Your task to perform on an android device: Open the stopwatch Image 0: 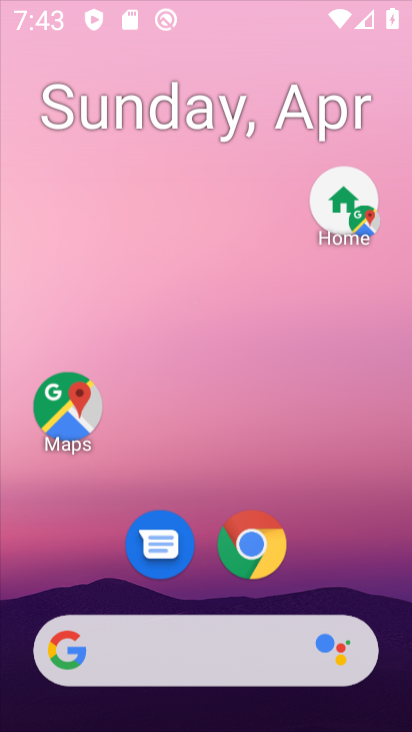
Step 0: press home button
Your task to perform on an android device: Open the stopwatch Image 1: 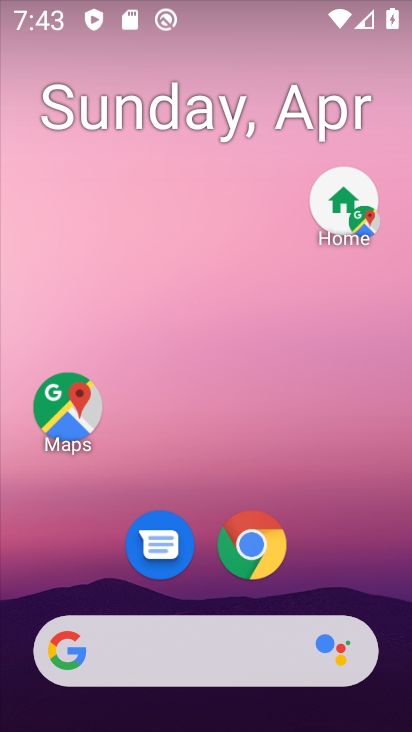
Step 1: drag from (300, 539) to (260, 210)
Your task to perform on an android device: Open the stopwatch Image 2: 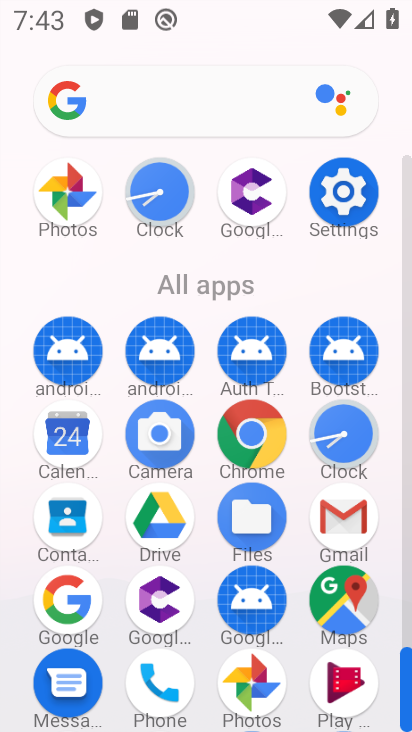
Step 2: click (349, 421)
Your task to perform on an android device: Open the stopwatch Image 3: 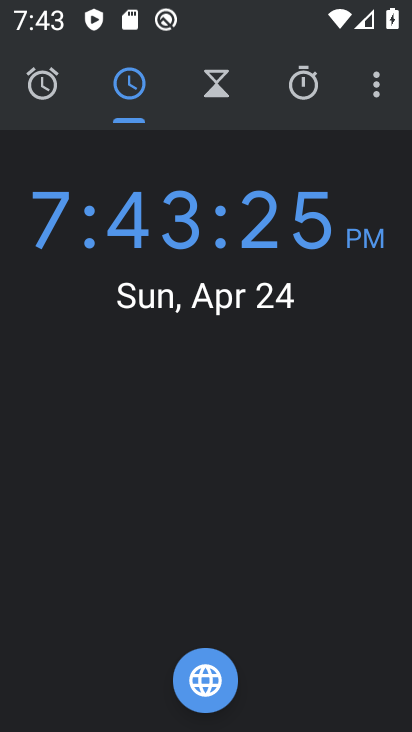
Step 3: click (299, 73)
Your task to perform on an android device: Open the stopwatch Image 4: 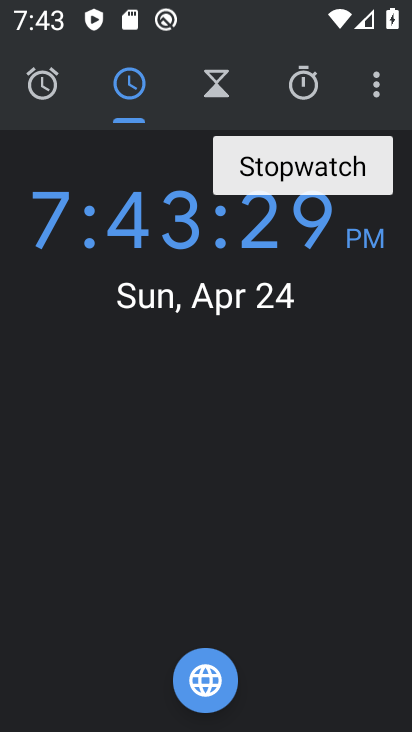
Step 4: click (300, 74)
Your task to perform on an android device: Open the stopwatch Image 5: 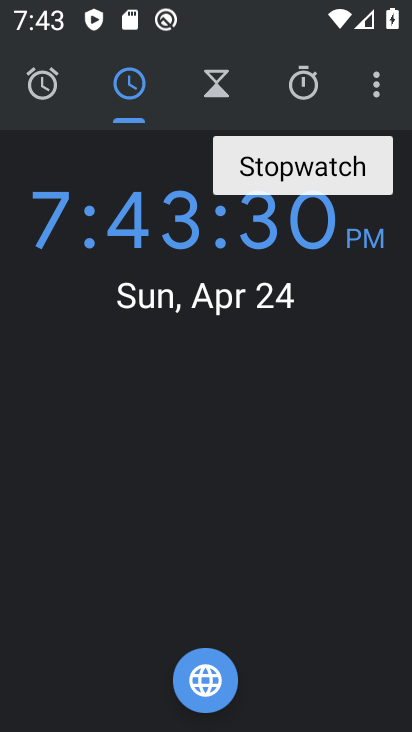
Step 5: click (300, 90)
Your task to perform on an android device: Open the stopwatch Image 6: 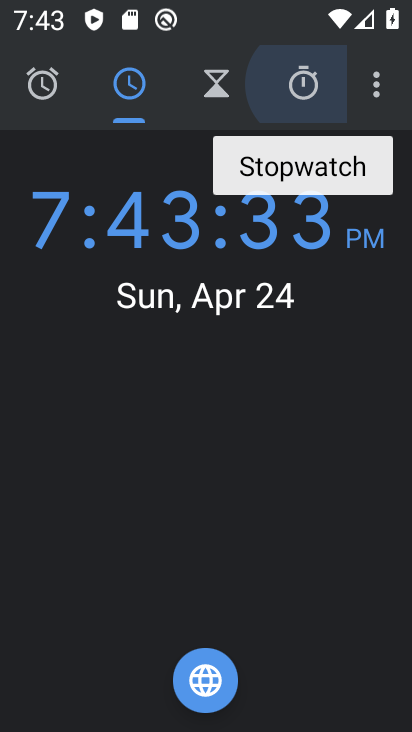
Step 6: click (219, 93)
Your task to perform on an android device: Open the stopwatch Image 7: 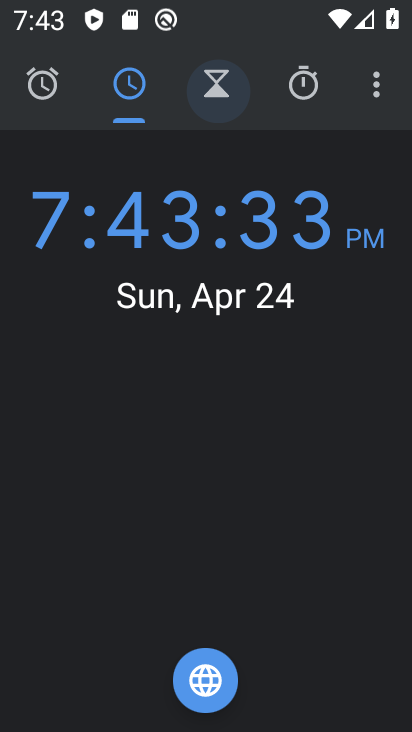
Step 7: click (215, 87)
Your task to perform on an android device: Open the stopwatch Image 8: 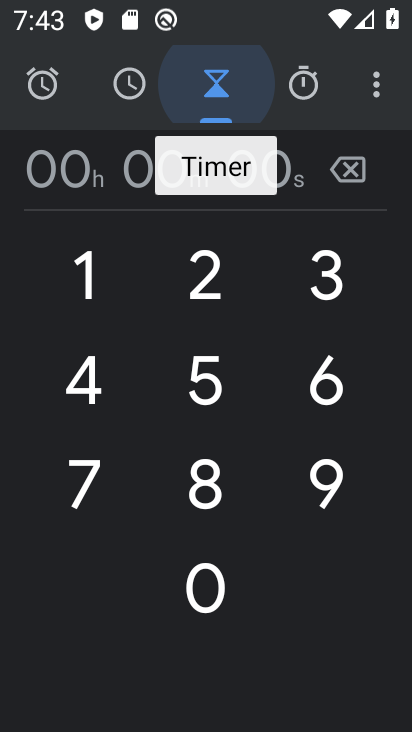
Step 8: click (288, 88)
Your task to perform on an android device: Open the stopwatch Image 9: 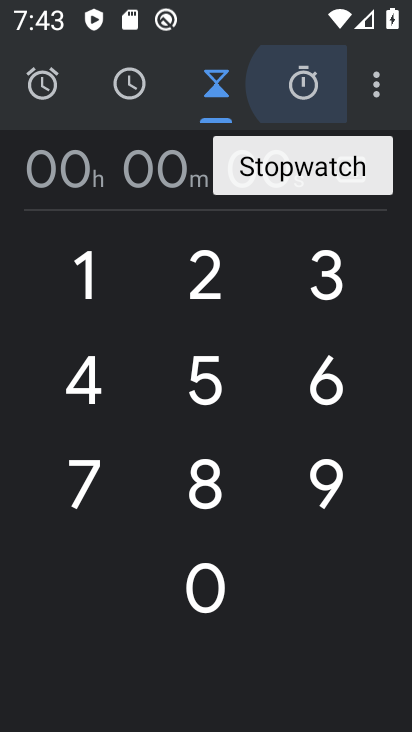
Step 9: click (296, 76)
Your task to perform on an android device: Open the stopwatch Image 10: 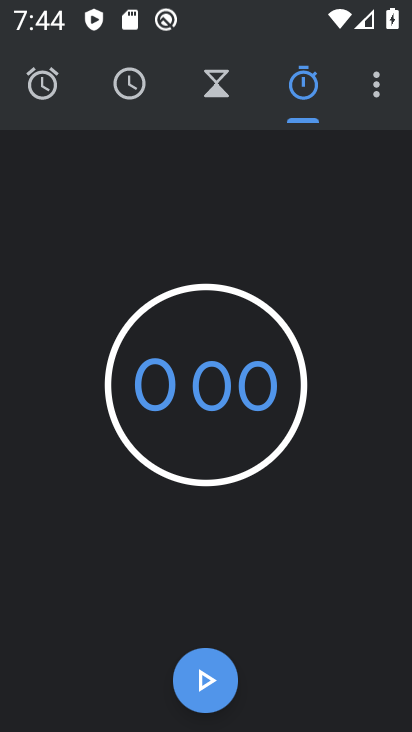
Step 10: task complete